Your task to perform on an android device: turn off location history Image 0: 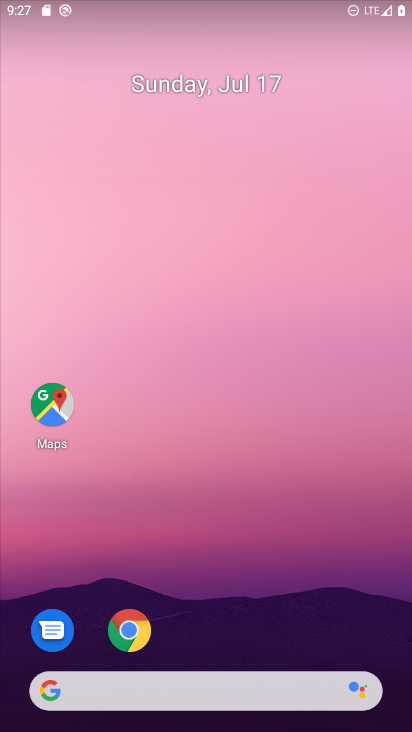
Step 0: drag from (250, 618) to (136, 0)
Your task to perform on an android device: turn off location history Image 1: 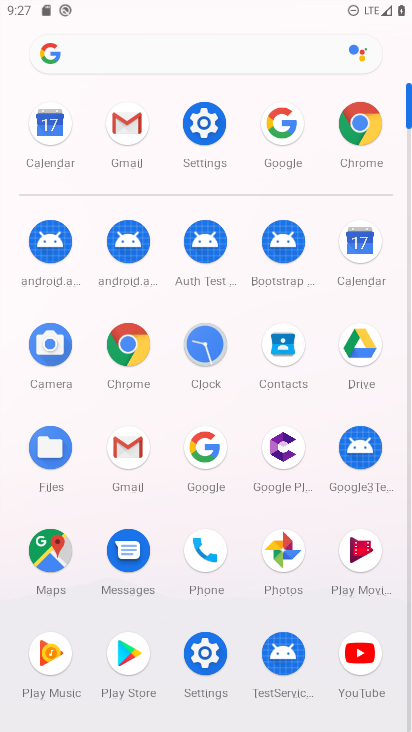
Step 1: click (215, 133)
Your task to perform on an android device: turn off location history Image 2: 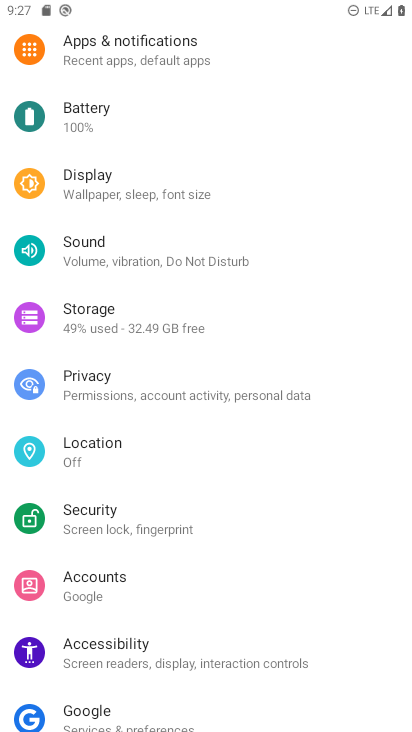
Step 2: click (96, 441)
Your task to perform on an android device: turn off location history Image 3: 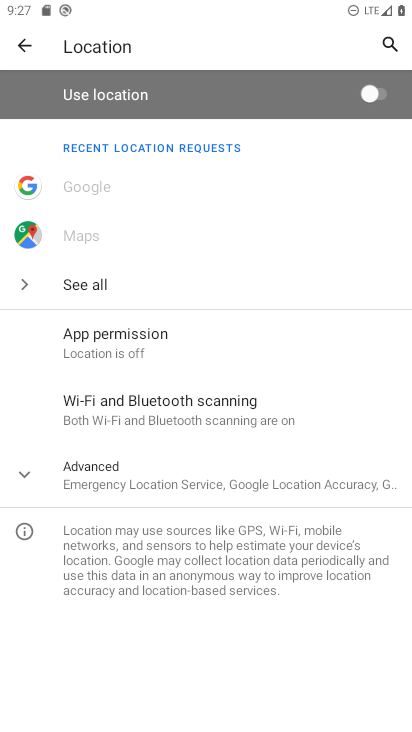
Step 3: click (169, 469)
Your task to perform on an android device: turn off location history Image 4: 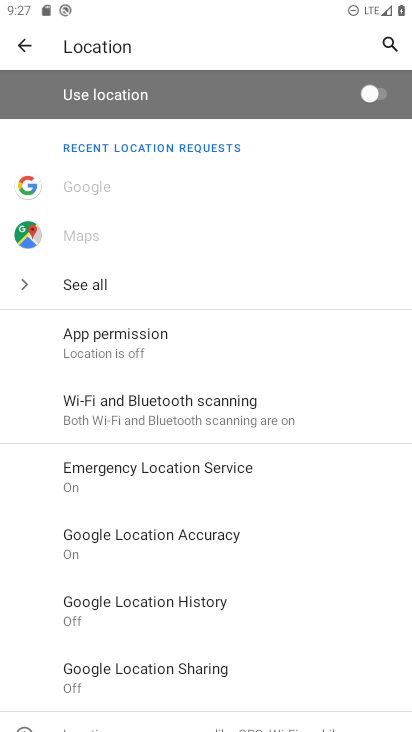
Step 4: click (148, 605)
Your task to perform on an android device: turn off location history Image 5: 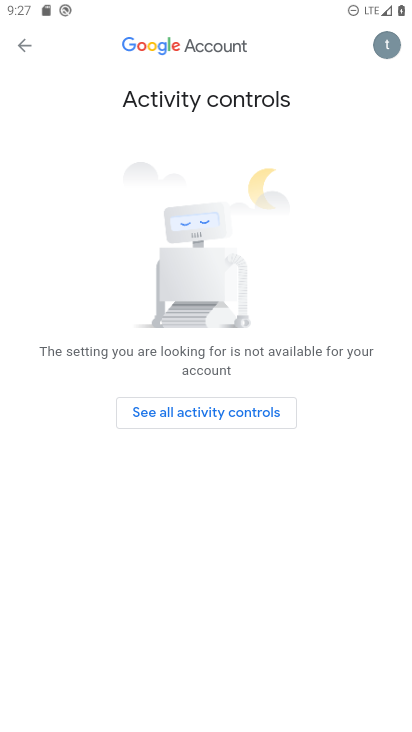
Step 5: task complete